Your task to perform on an android device: add a label to a message in the gmail app Image 0: 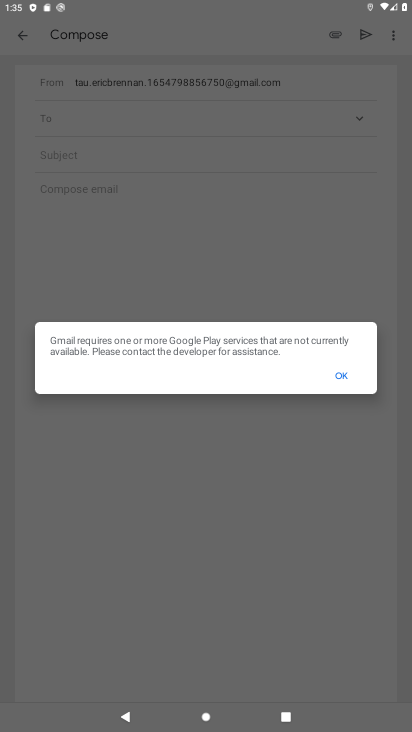
Step 0: press back button
Your task to perform on an android device: add a label to a message in the gmail app Image 1: 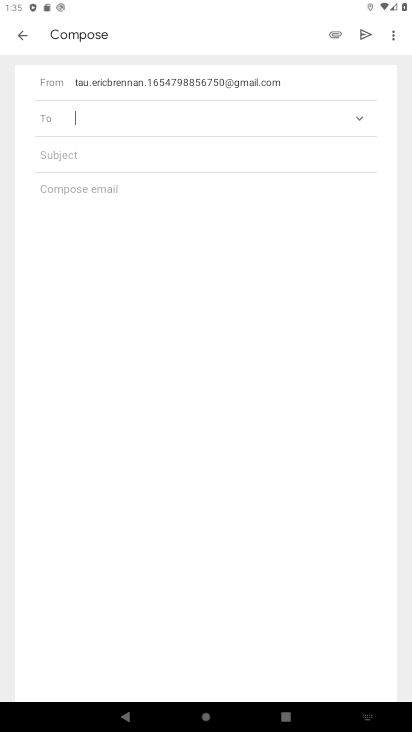
Step 1: press back button
Your task to perform on an android device: add a label to a message in the gmail app Image 2: 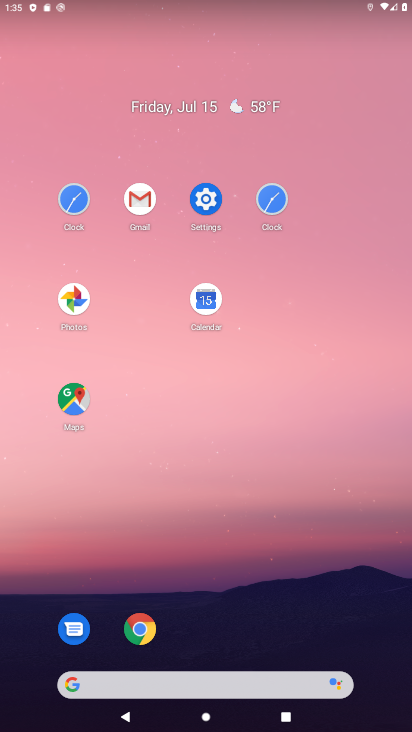
Step 2: click (143, 203)
Your task to perform on an android device: add a label to a message in the gmail app Image 3: 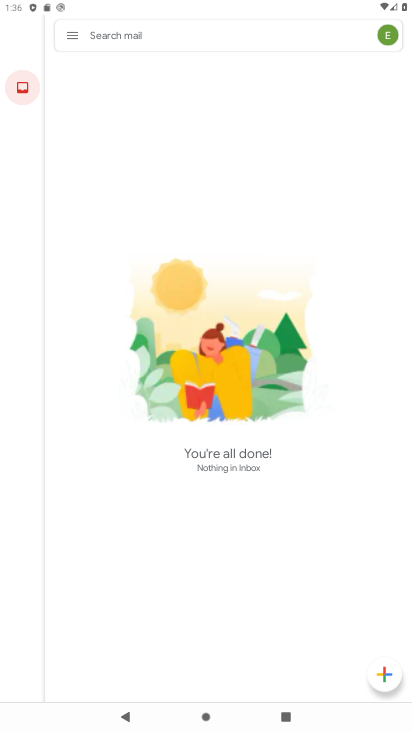
Step 3: task complete